Your task to perform on an android device: change keyboard looks Image 0: 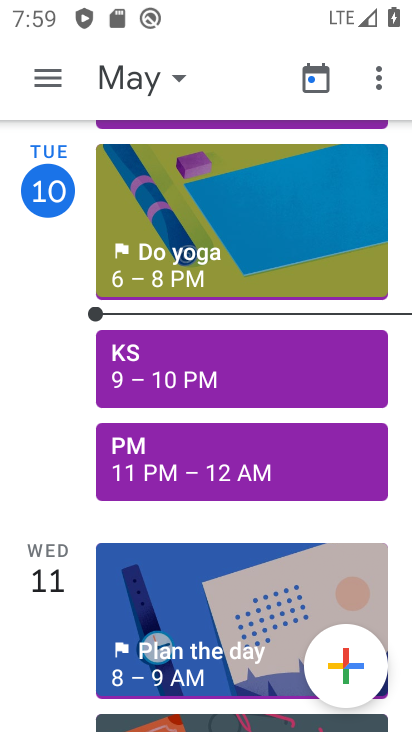
Step 0: press back button
Your task to perform on an android device: change keyboard looks Image 1: 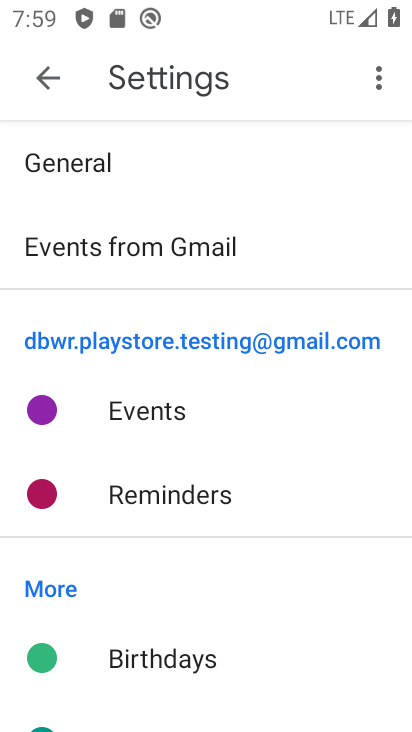
Step 1: press back button
Your task to perform on an android device: change keyboard looks Image 2: 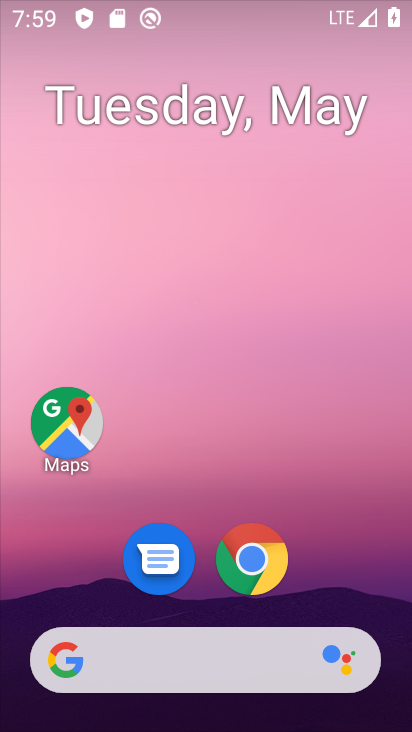
Step 2: drag from (361, 622) to (119, 86)
Your task to perform on an android device: change keyboard looks Image 3: 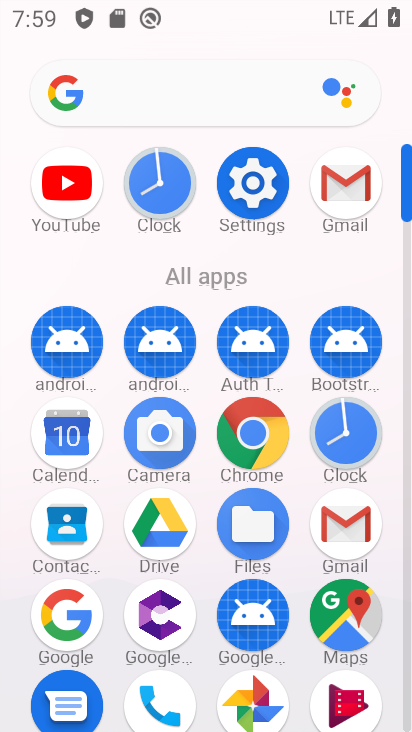
Step 3: click (245, 190)
Your task to perform on an android device: change keyboard looks Image 4: 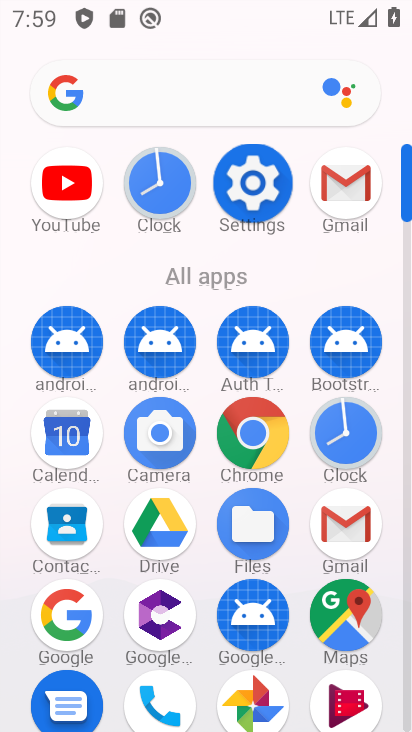
Step 4: click (245, 189)
Your task to perform on an android device: change keyboard looks Image 5: 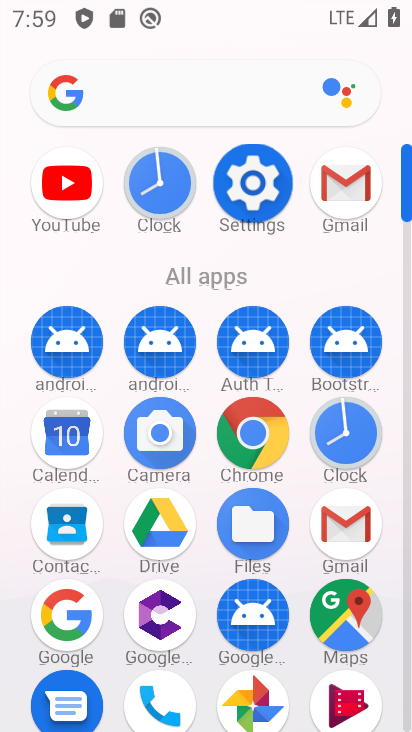
Step 5: click (245, 188)
Your task to perform on an android device: change keyboard looks Image 6: 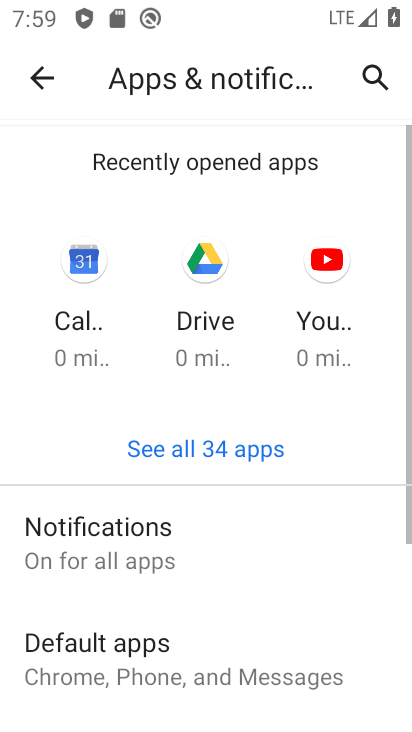
Step 6: click (48, 70)
Your task to perform on an android device: change keyboard looks Image 7: 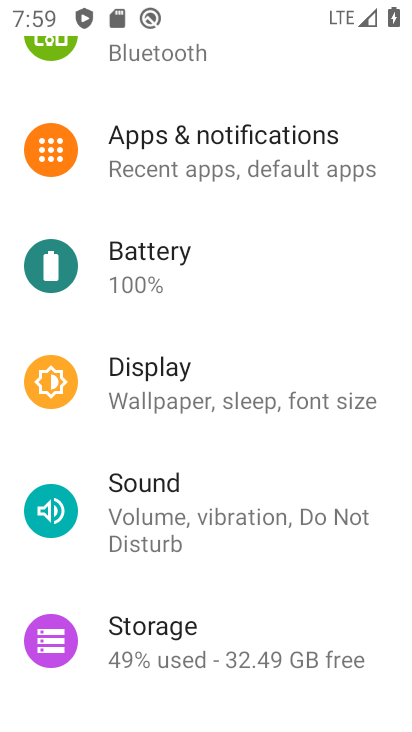
Step 7: drag from (241, 627) to (221, 212)
Your task to perform on an android device: change keyboard looks Image 8: 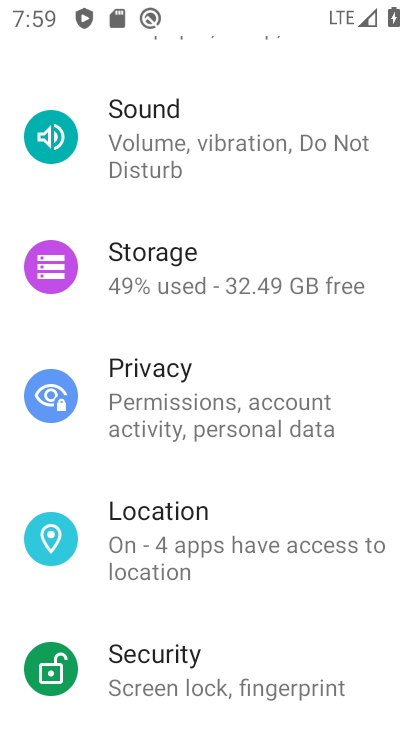
Step 8: drag from (294, 565) to (227, 135)
Your task to perform on an android device: change keyboard looks Image 9: 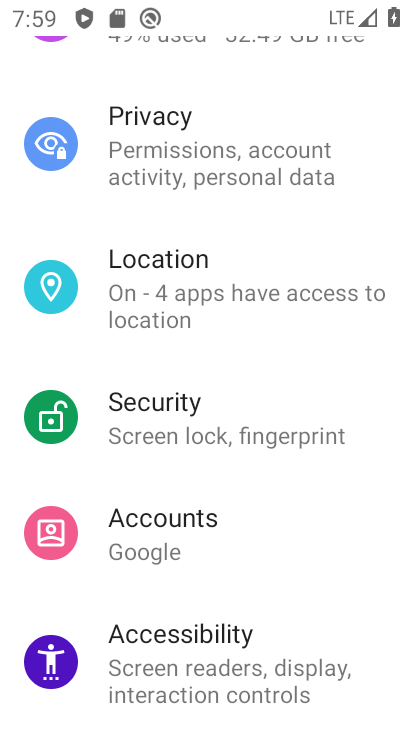
Step 9: drag from (265, 490) to (210, 86)
Your task to perform on an android device: change keyboard looks Image 10: 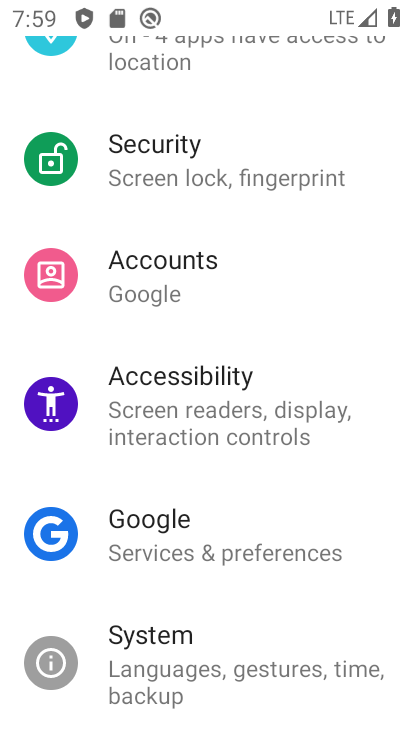
Step 10: click (152, 649)
Your task to perform on an android device: change keyboard looks Image 11: 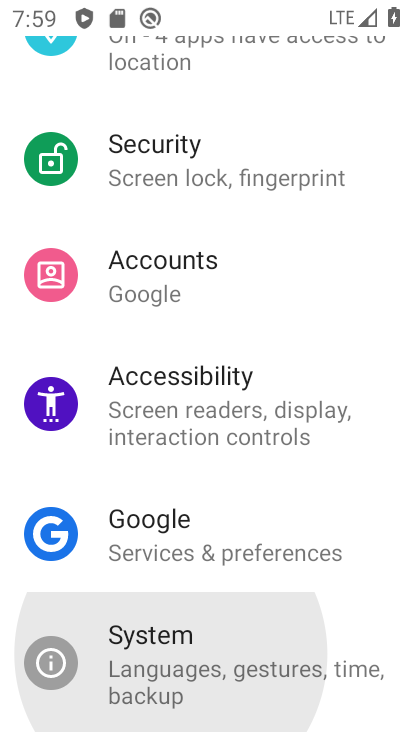
Step 11: click (150, 650)
Your task to perform on an android device: change keyboard looks Image 12: 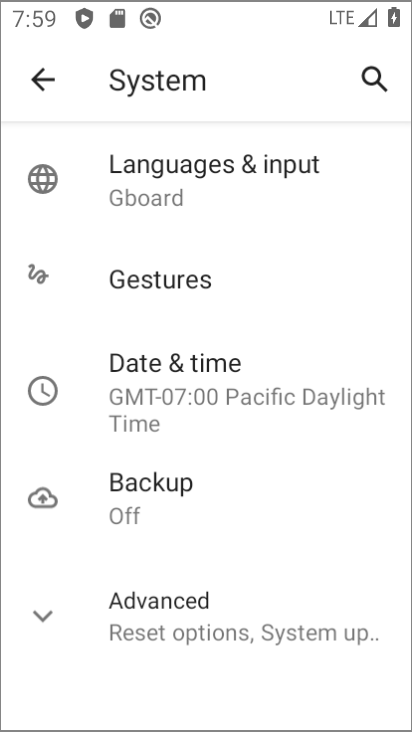
Step 12: click (146, 643)
Your task to perform on an android device: change keyboard looks Image 13: 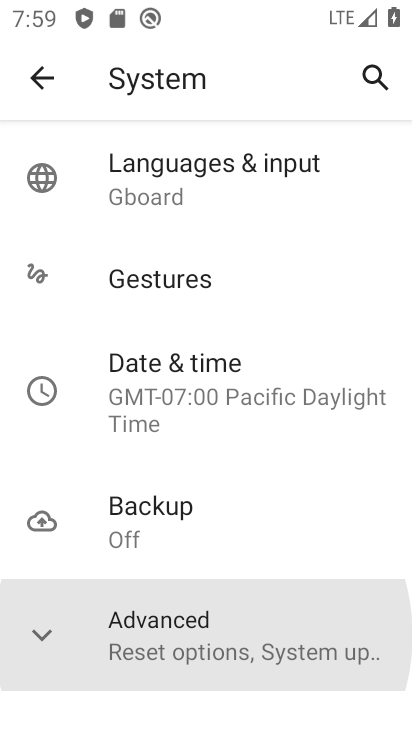
Step 13: click (143, 642)
Your task to perform on an android device: change keyboard looks Image 14: 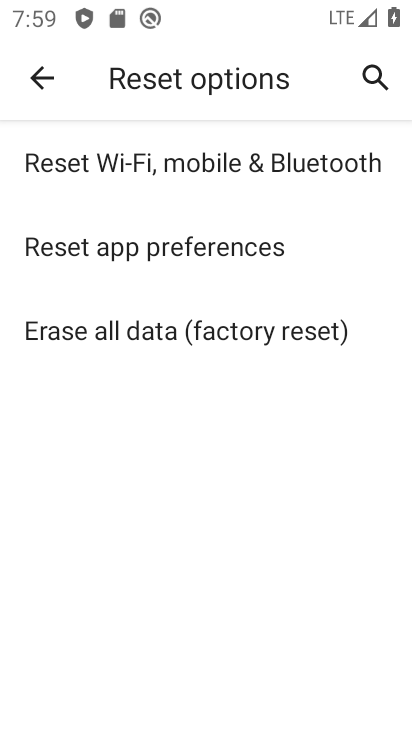
Step 14: click (38, 72)
Your task to perform on an android device: change keyboard looks Image 15: 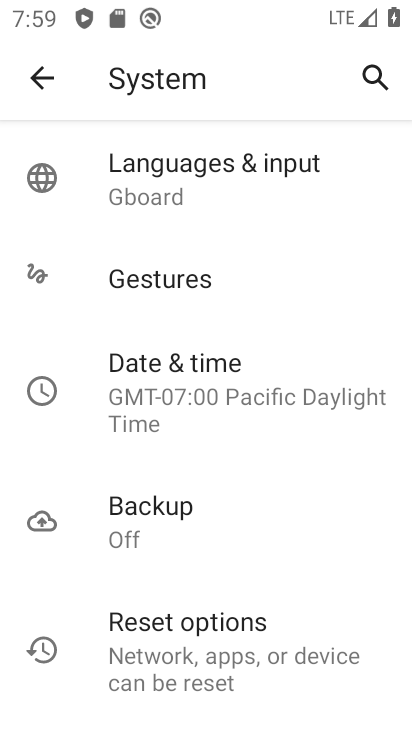
Step 15: click (33, 78)
Your task to perform on an android device: change keyboard looks Image 16: 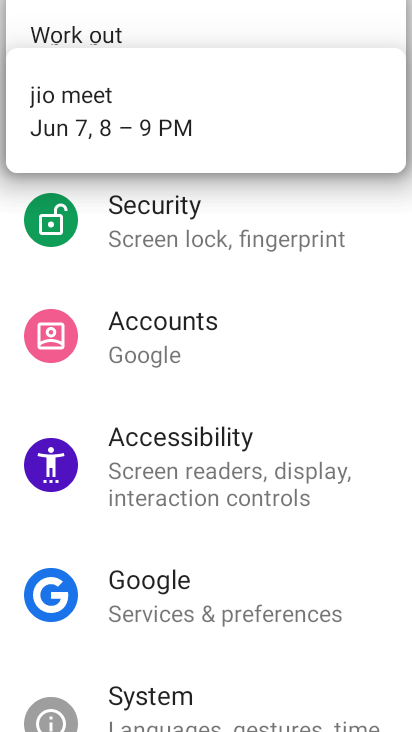
Step 16: drag from (207, 613) to (157, 284)
Your task to perform on an android device: change keyboard looks Image 17: 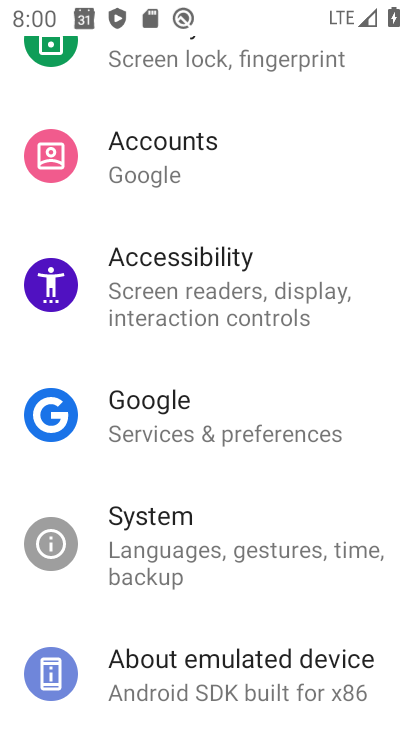
Step 17: click (156, 561)
Your task to perform on an android device: change keyboard looks Image 18: 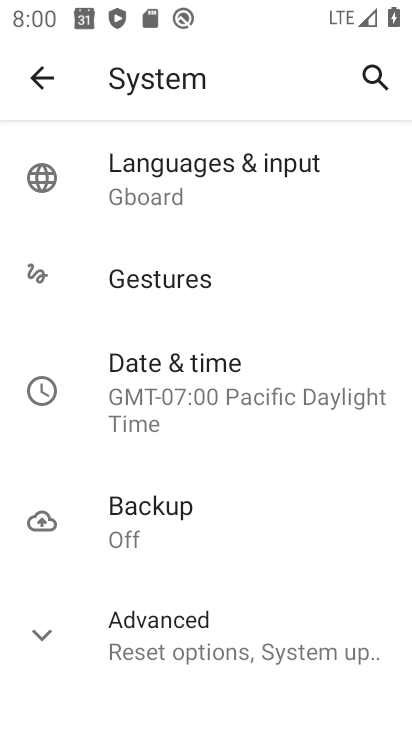
Step 18: click (168, 187)
Your task to perform on an android device: change keyboard looks Image 19: 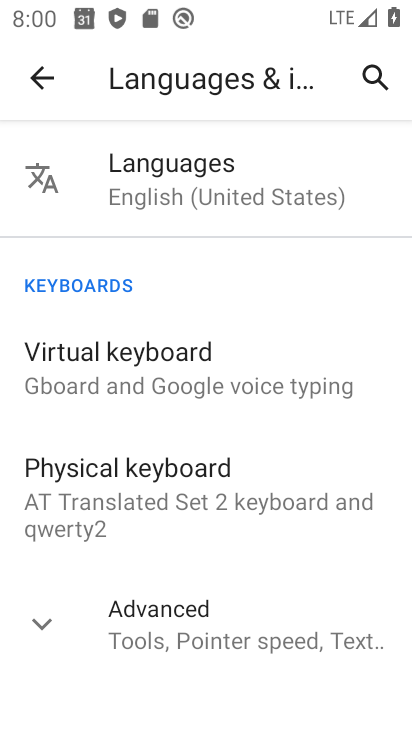
Step 19: click (122, 381)
Your task to perform on an android device: change keyboard looks Image 20: 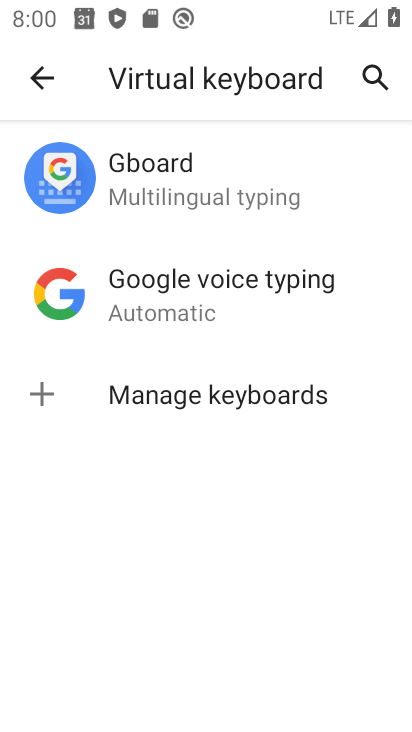
Step 20: click (155, 200)
Your task to perform on an android device: change keyboard looks Image 21: 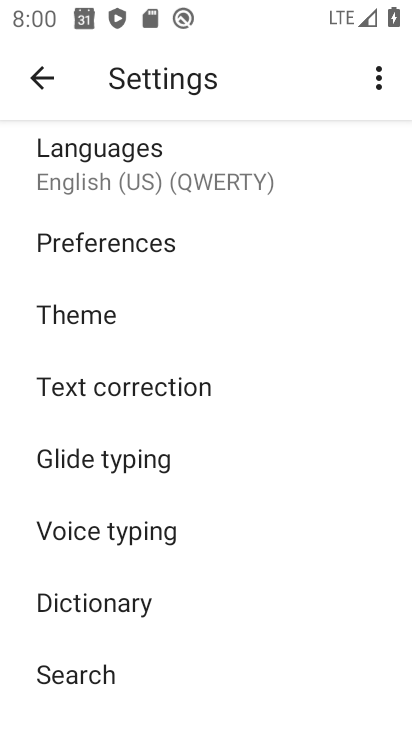
Step 21: click (57, 297)
Your task to perform on an android device: change keyboard looks Image 22: 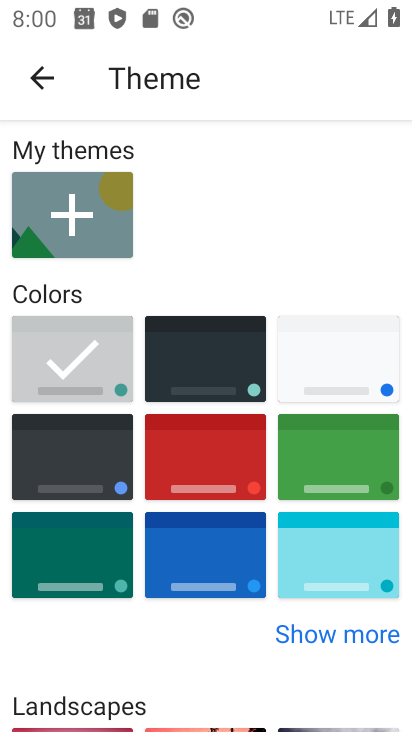
Step 22: click (100, 438)
Your task to perform on an android device: change keyboard looks Image 23: 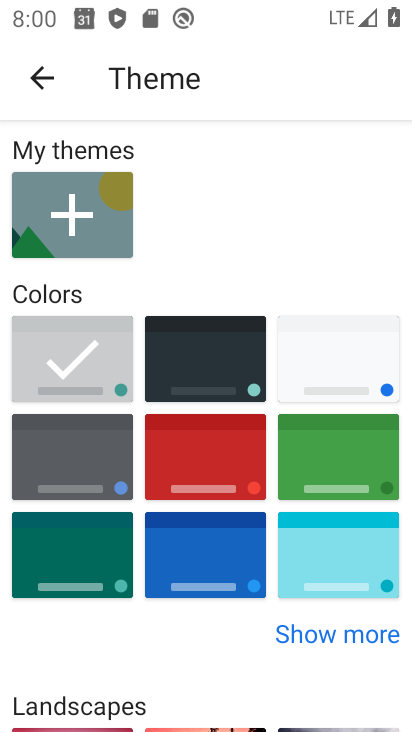
Step 23: click (95, 441)
Your task to perform on an android device: change keyboard looks Image 24: 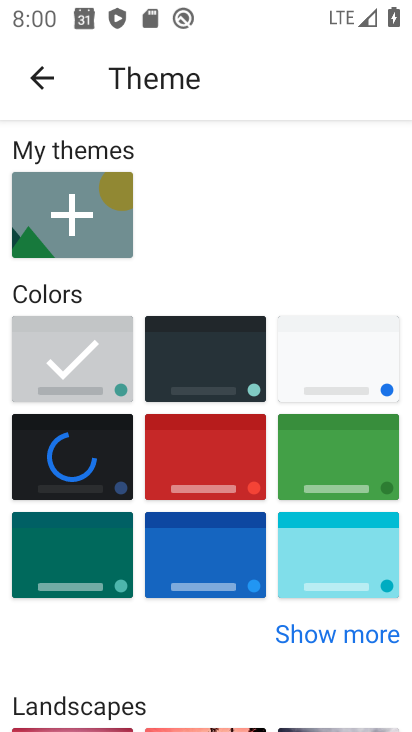
Step 24: click (97, 439)
Your task to perform on an android device: change keyboard looks Image 25: 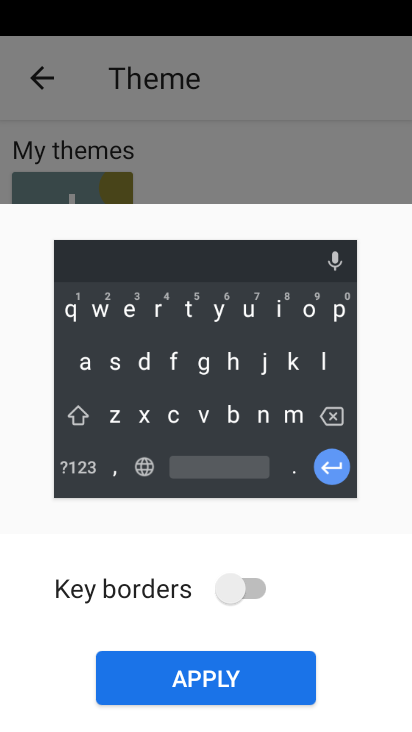
Step 25: click (190, 676)
Your task to perform on an android device: change keyboard looks Image 26: 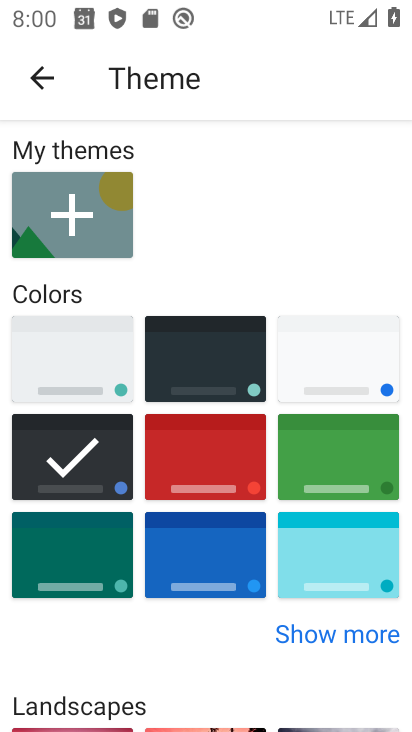
Step 26: task complete